Your task to perform on an android device: Go to settings Image 0: 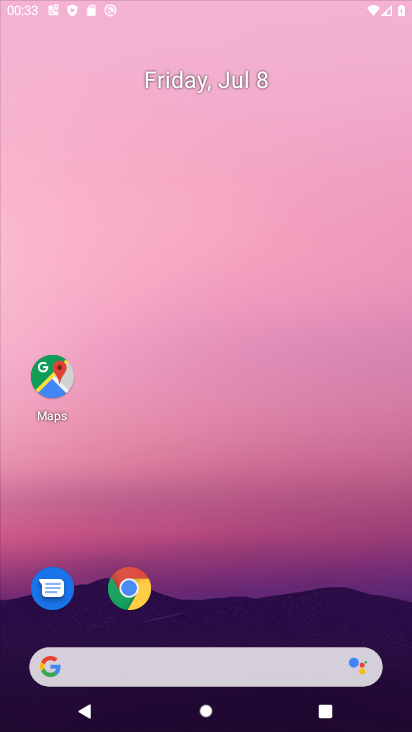
Step 0: click (259, 89)
Your task to perform on an android device: Go to settings Image 1: 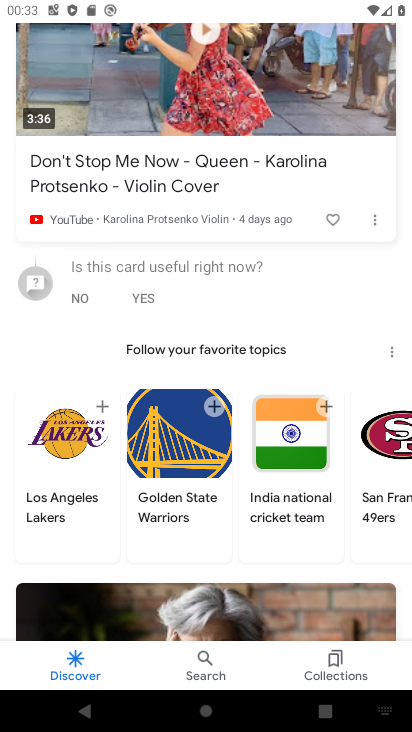
Step 1: drag from (156, 514) to (220, 117)
Your task to perform on an android device: Go to settings Image 2: 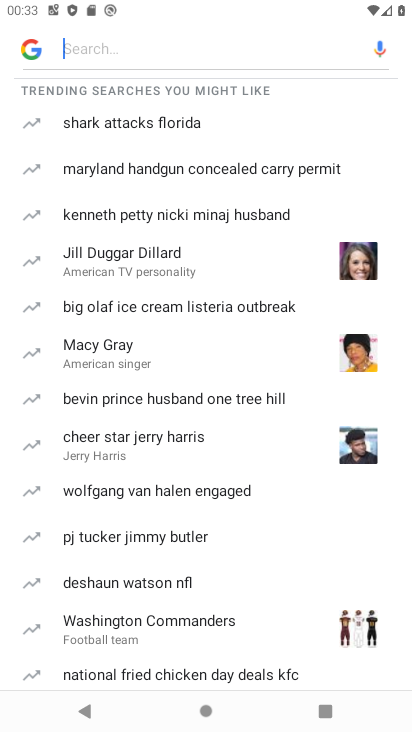
Step 2: press home button
Your task to perform on an android device: Go to settings Image 3: 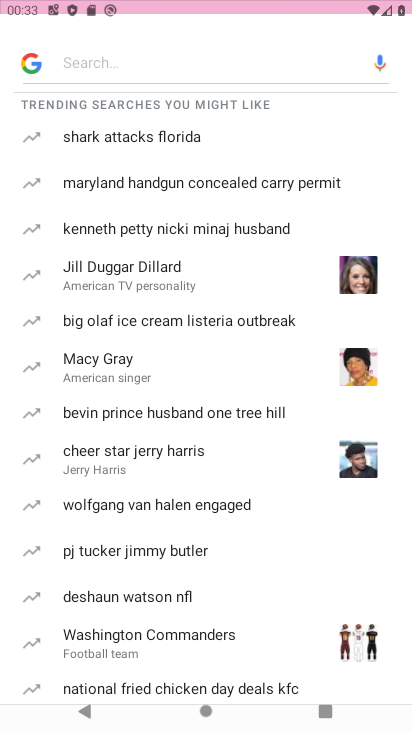
Step 3: drag from (145, 576) to (346, 13)
Your task to perform on an android device: Go to settings Image 4: 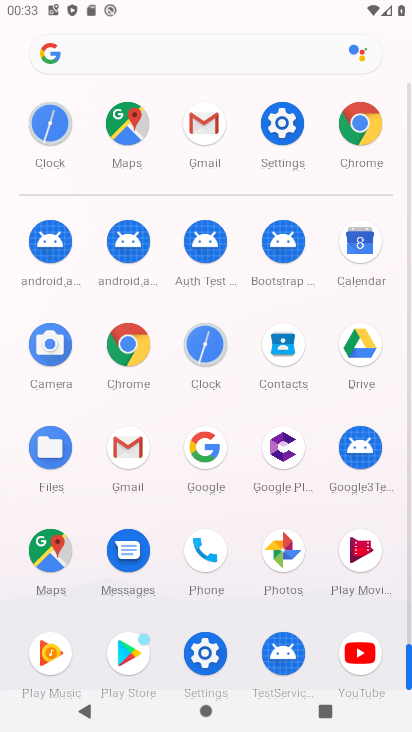
Step 4: click (283, 121)
Your task to perform on an android device: Go to settings Image 5: 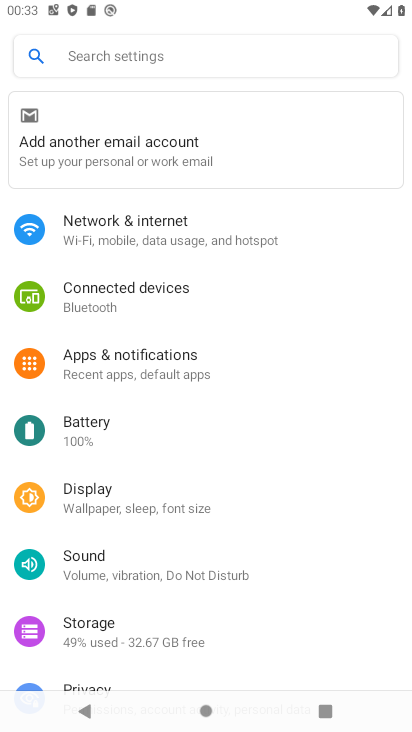
Step 5: task complete